Your task to perform on an android device: check android version Image 0: 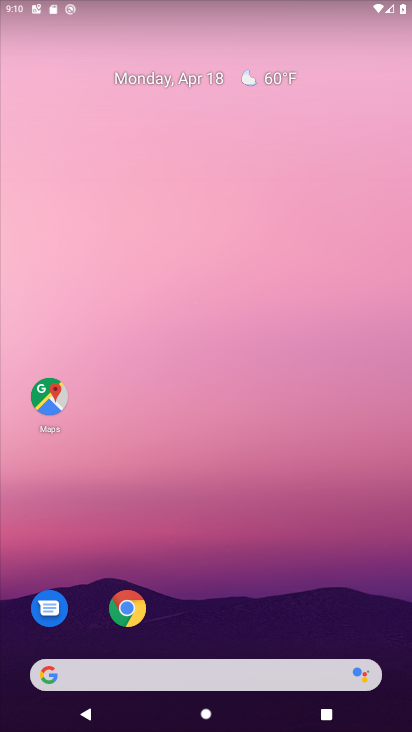
Step 0: drag from (355, 543) to (342, 108)
Your task to perform on an android device: check android version Image 1: 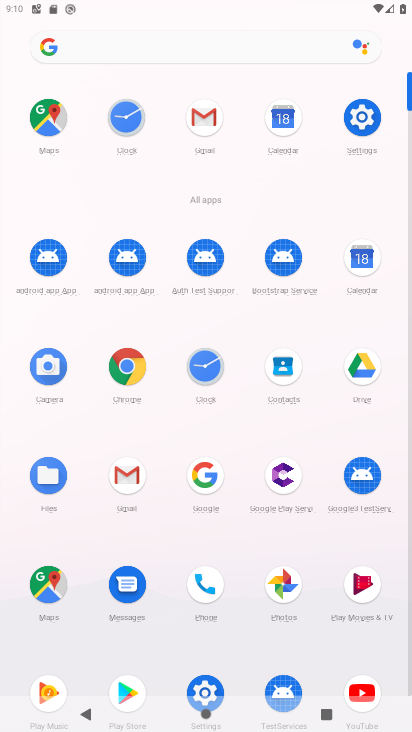
Step 1: click (356, 120)
Your task to perform on an android device: check android version Image 2: 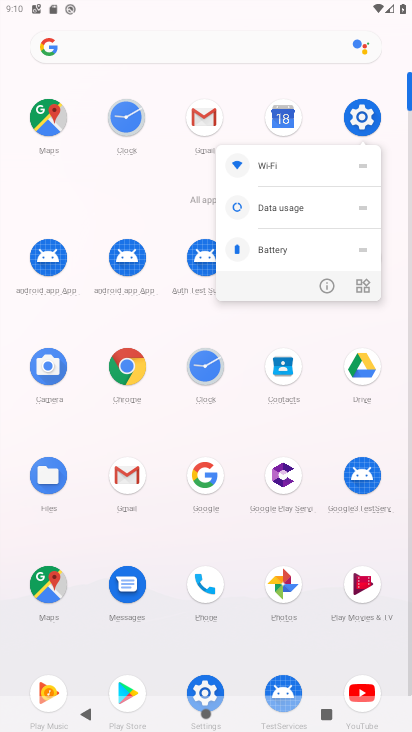
Step 2: click (356, 120)
Your task to perform on an android device: check android version Image 3: 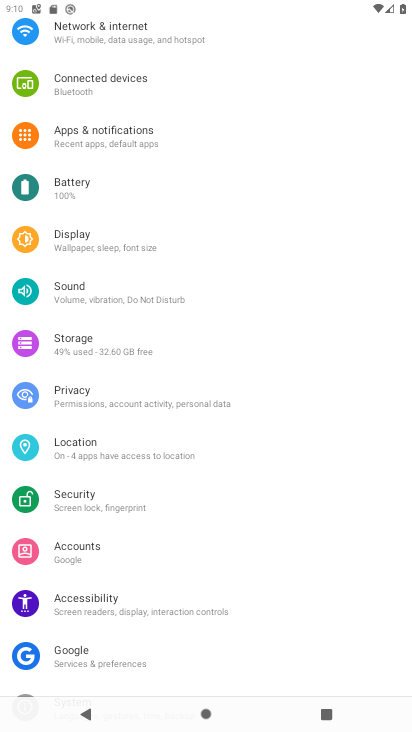
Step 3: drag from (262, 576) to (278, 224)
Your task to perform on an android device: check android version Image 4: 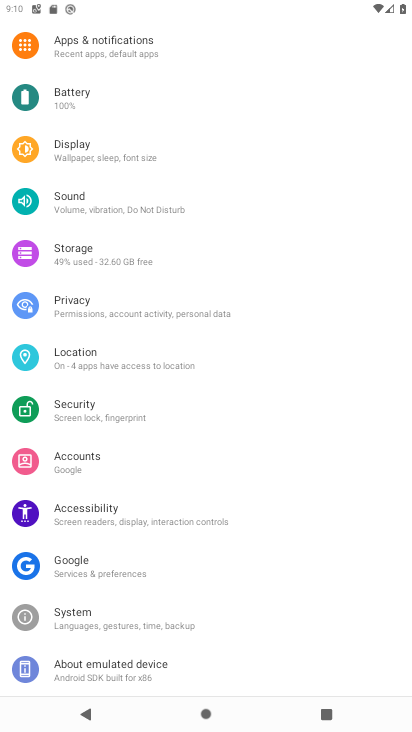
Step 4: click (164, 676)
Your task to perform on an android device: check android version Image 5: 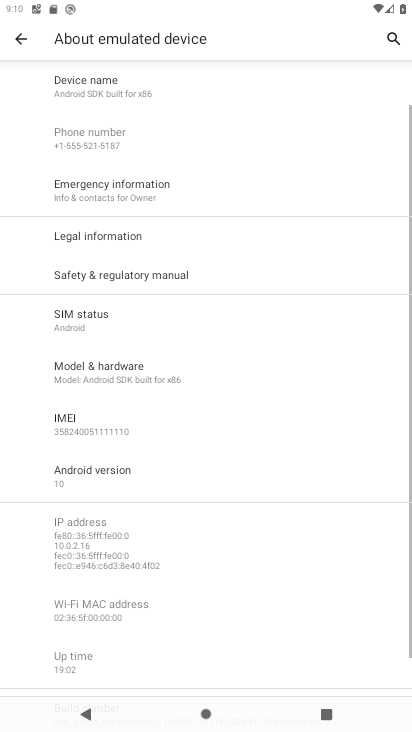
Step 5: click (102, 469)
Your task to perform on an android device: check android version Image 6: 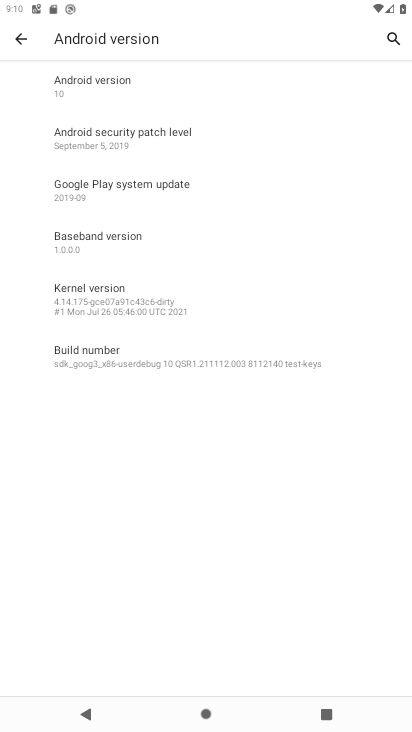
Step 6: task complete